Your task to perform on an android device: Go to internet settings Image 0: 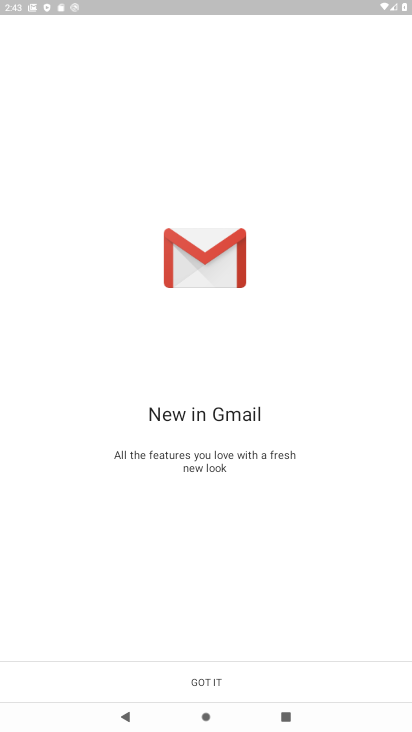
Step 0: press home button
Your task to perform on an android device: Go to internet settings Image 1: 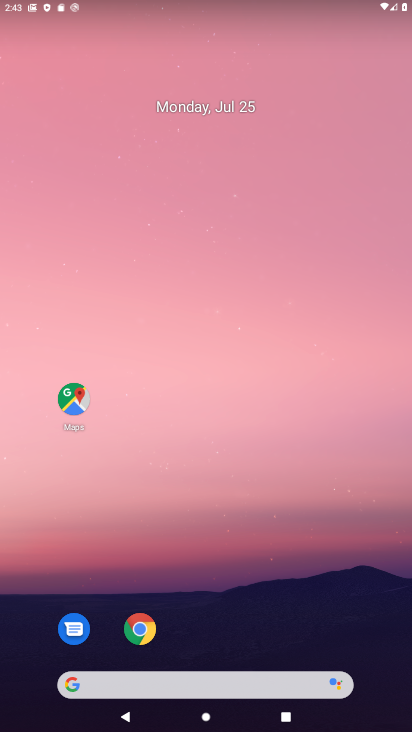
Step 1: drag from (263, 641) to (182, 115)
Your task to perform on an android device: Go to internet settings Image 2: 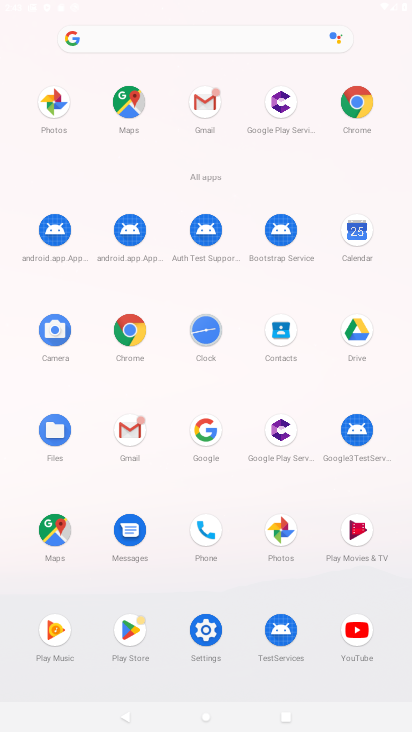
Step 2: click (213, 632)
Your task to perform on an android device: Go to internet settings Image 3: 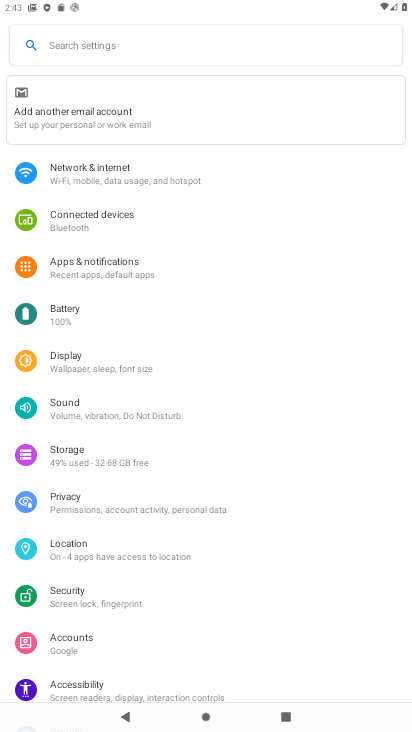
Step 3: click (178, 174)
Your task to perform on an android device: Go to internet settings Image 4: 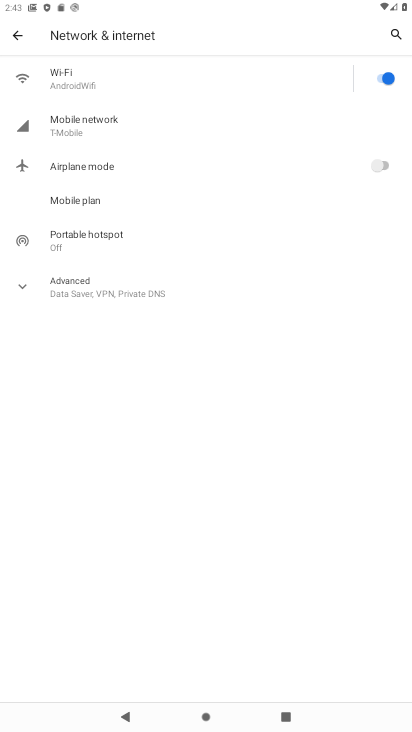
Step 4: task complete